Your task to perform on an android device: set an alarm Image 0: 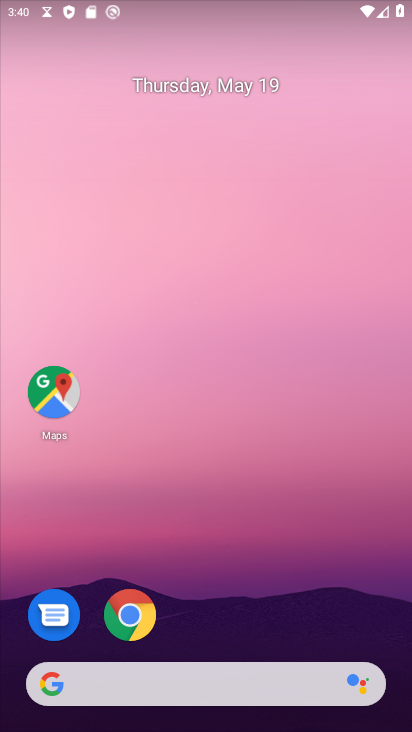
Step 0: drag from (290, 648) to (402, 117)
Your task to perform on an android device: set an alarm Image 1: 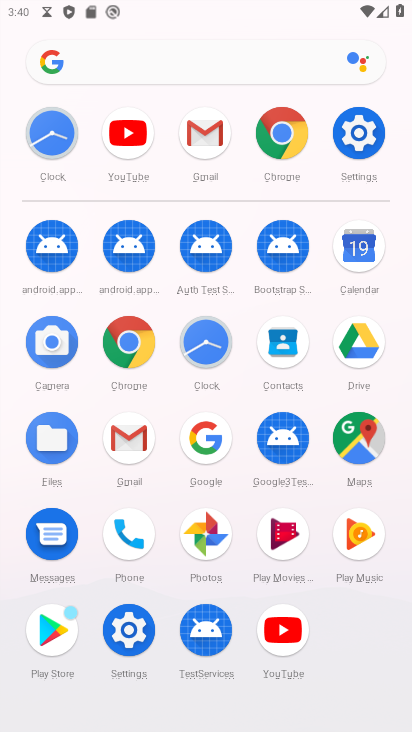
Step 1: click (199, 337)
Your task to perform on an android device: set an alarm Image 2: 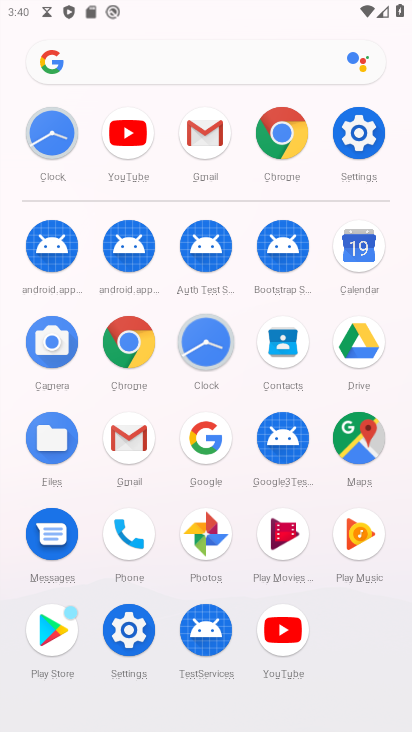
Step 2: click (199, 337)
Your task to perform on an android device: set an alarm Image 3: 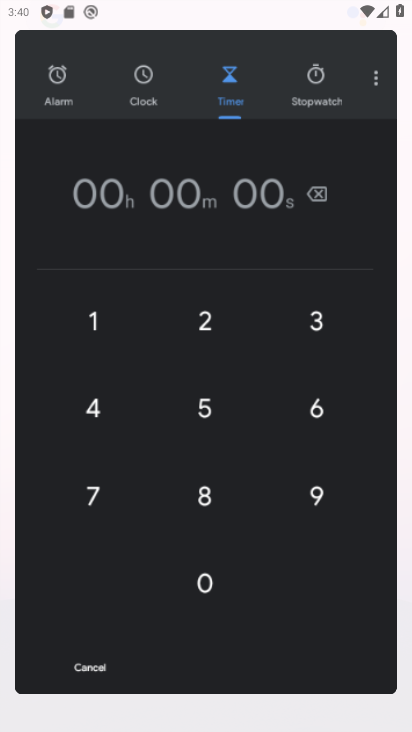
Step 3: click (199, 337)
Your task to perform on an android device: set an alarm Image 4: 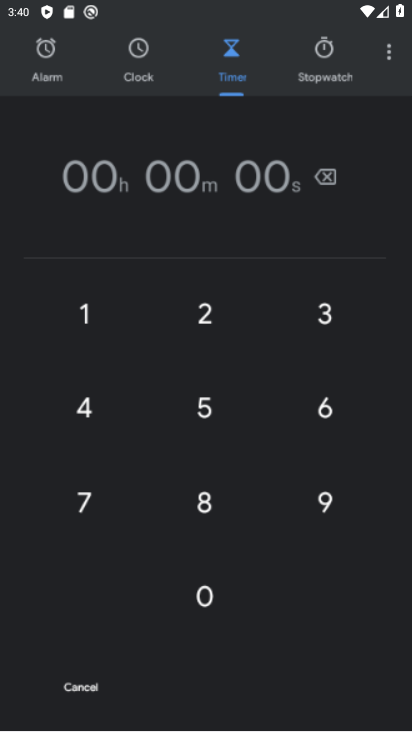
Step 4: click (201, 337)
Your task to perform on an android device: set an alarm Image 5: 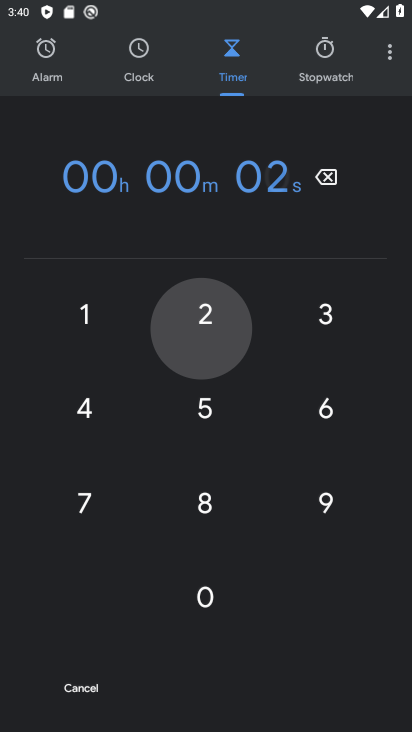
Step 5: click (201, 337)
Your task to perform on an android device: set an alarm Image 6: 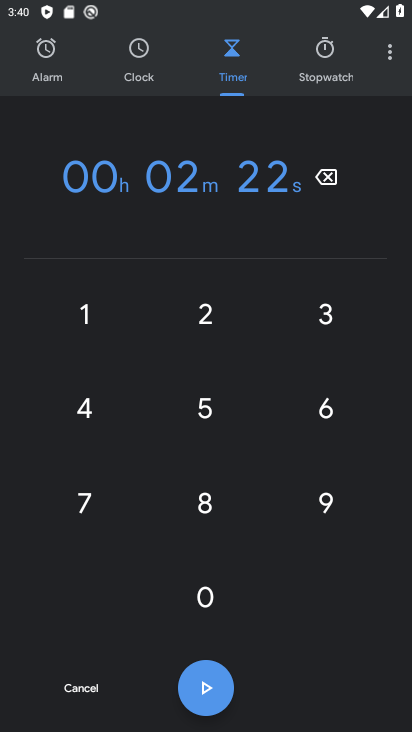
Step 6: click (202, 513)
Your task to perform on an android device: set an alarm Image 7: 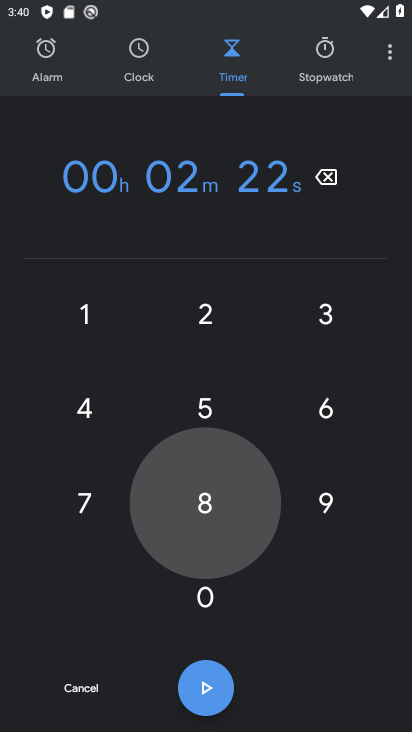
Step 7: click (202, 513)
Your task to perform on an android device: set an alarm Image 8: 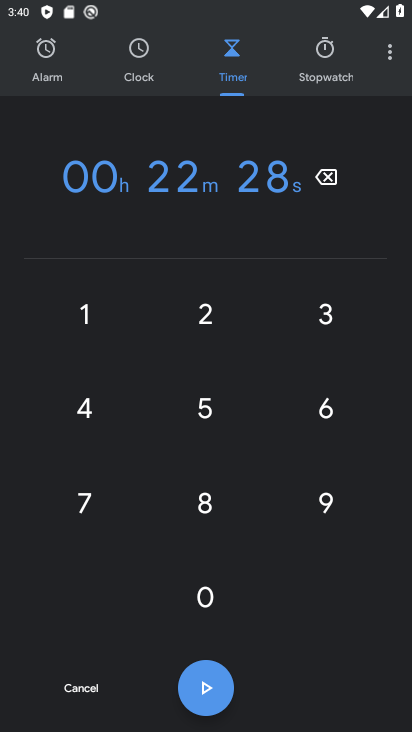
Step 8: click (202, 513)
Your task to perform on an android device: set an alarm Image 9: 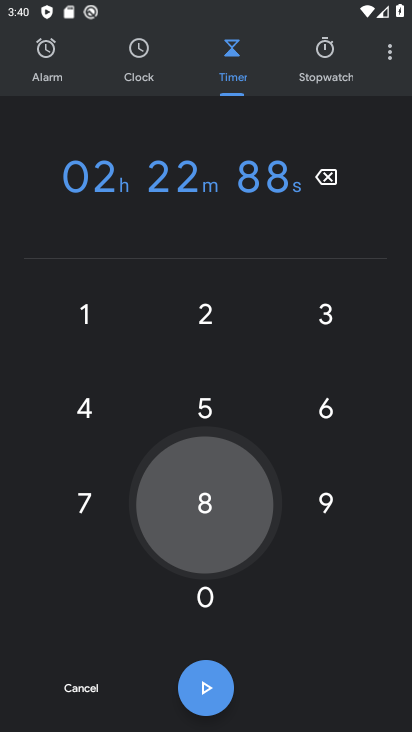
Step 9: click (202, 512)
Your task to perform on an android device: set an alarm Image 10: 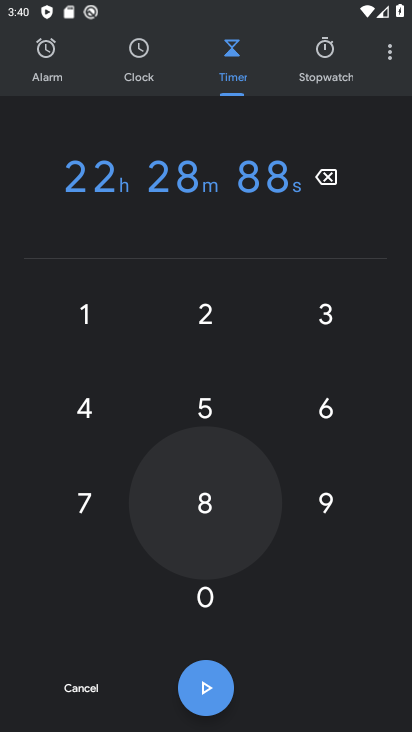
Step 10: click (205, 511)
Your task to perform on an android device: set an alarm Image 11: 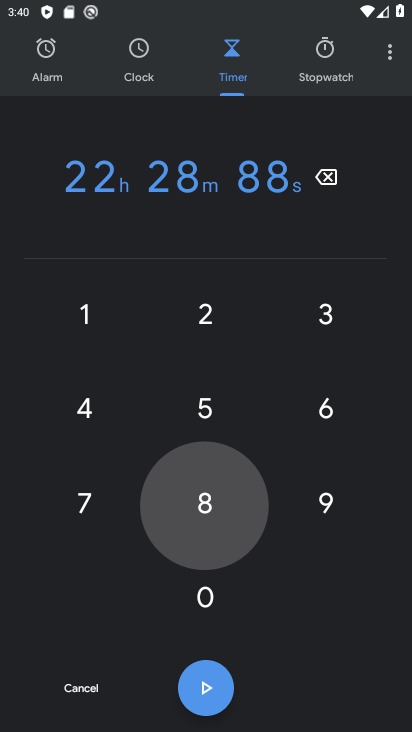
Step 11: click (203, 506)
Your task to perform on an android device: set an alarm Image 12: 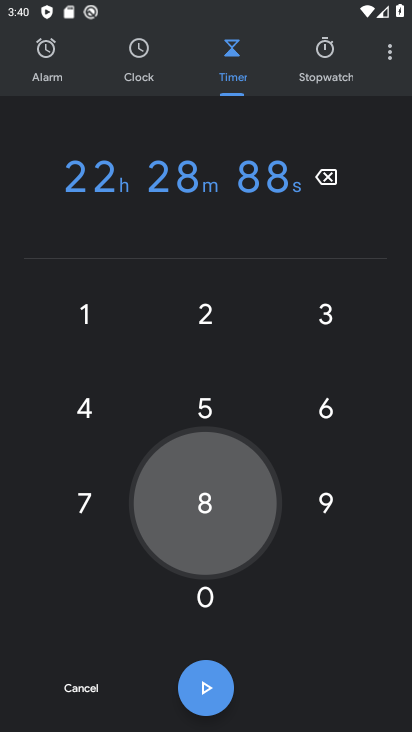
Step 12: click (205, 504)
Your task to perform on an android device: set an alarm Image 13: 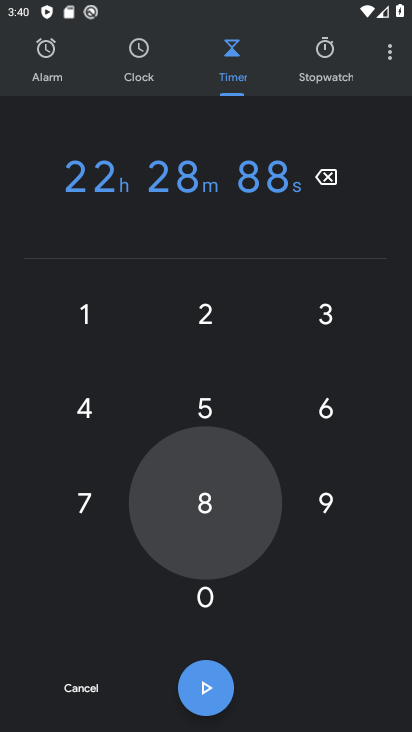
Step 13: click (205, 503)
Your task to perform on an android device: set an alarm Image 14: 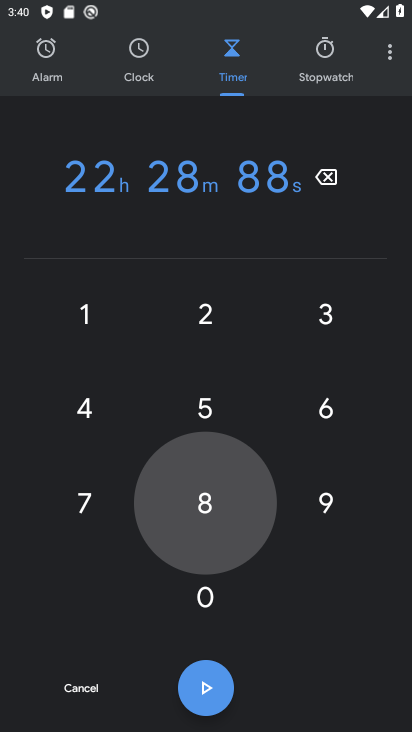
Step 14: click (205, 501)
Your task to perform on an android device: set an alarm Image 15: 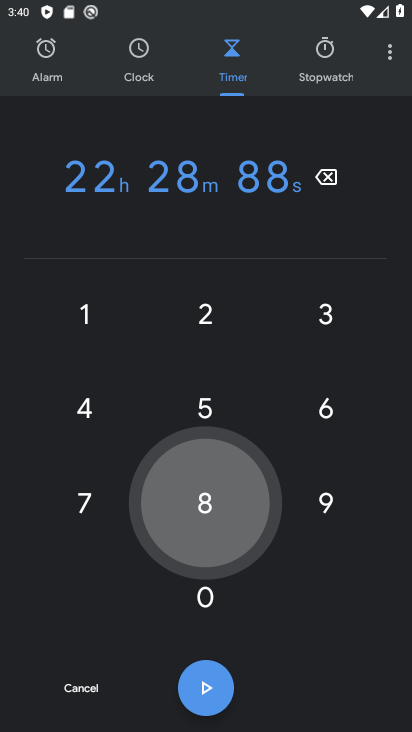
Step 15: click (206, 494)
Your task to perform on an android device: set an alarm Image 16: 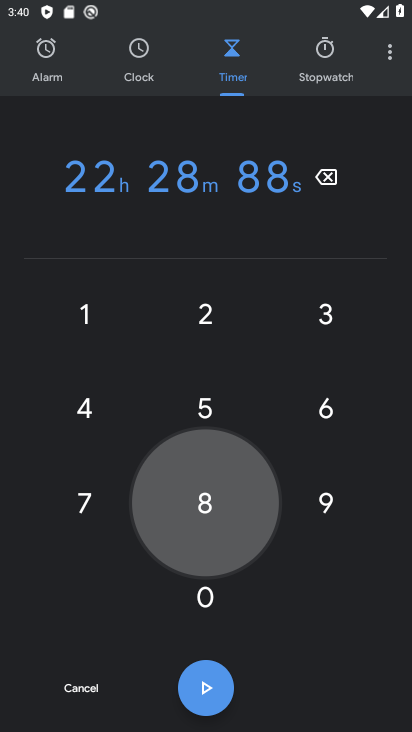
Step 16: click (206, 494)
Your task to perform on an android device: set an alarm Image 17: 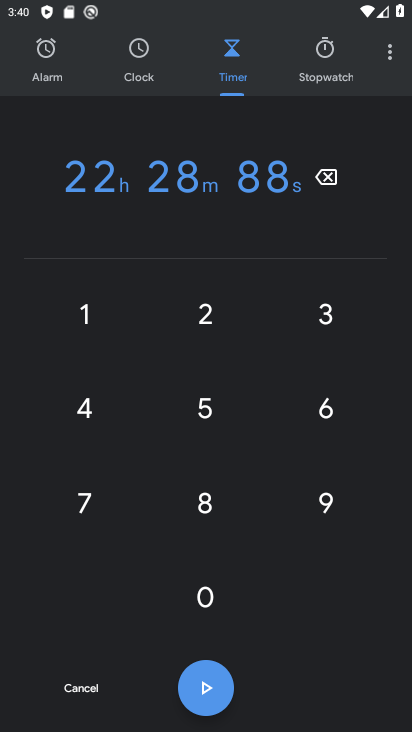
Step 17: click (45, 64)
Your task to perform on an android device: set an alarm Image 18: 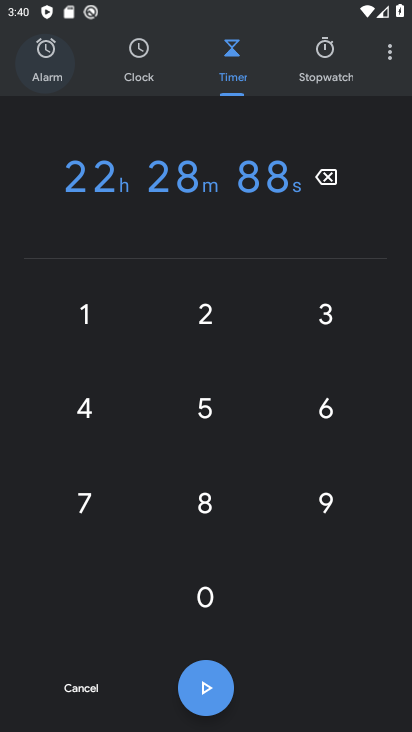
Step 18: click (45, 64)
Your task to perform on an android device: set an alarm Image 19: 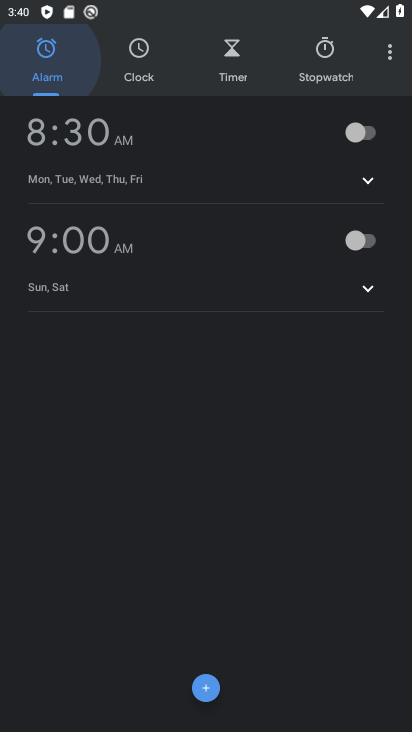
Step 19: click (45, 64)
Your task to perform on an android device: set an alarm Image 20: 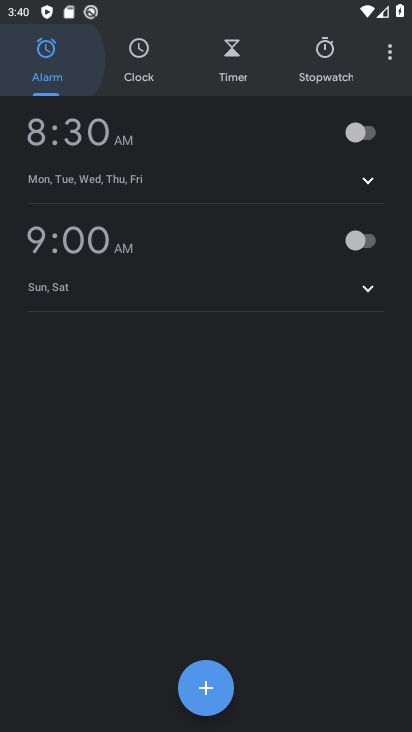
Step 20: click (45, 64)
Your task to perform on an android device: set an alarm Image 21: 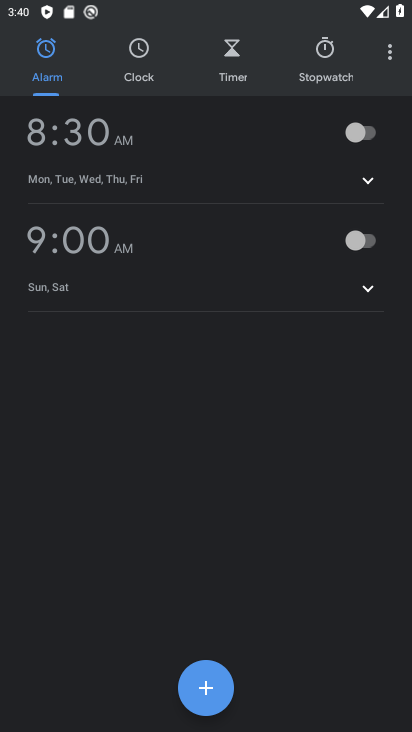
Step 21: click (361, 133)
Your task to perform on an android device: set an alarm Image 22: 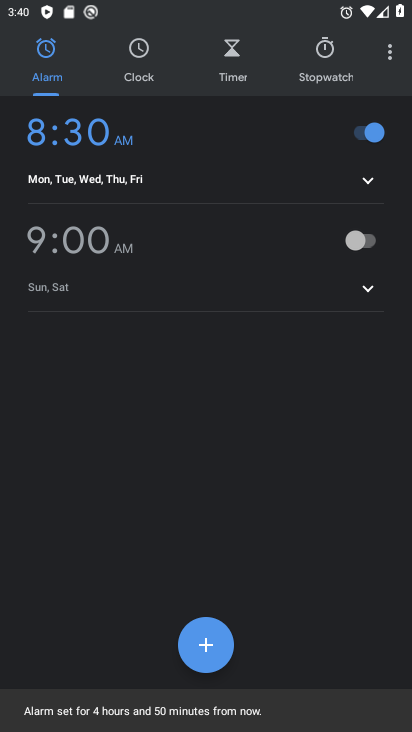
Step 22: task complete